Your task to perform on an android device: install app "Truecaller" Image 0: 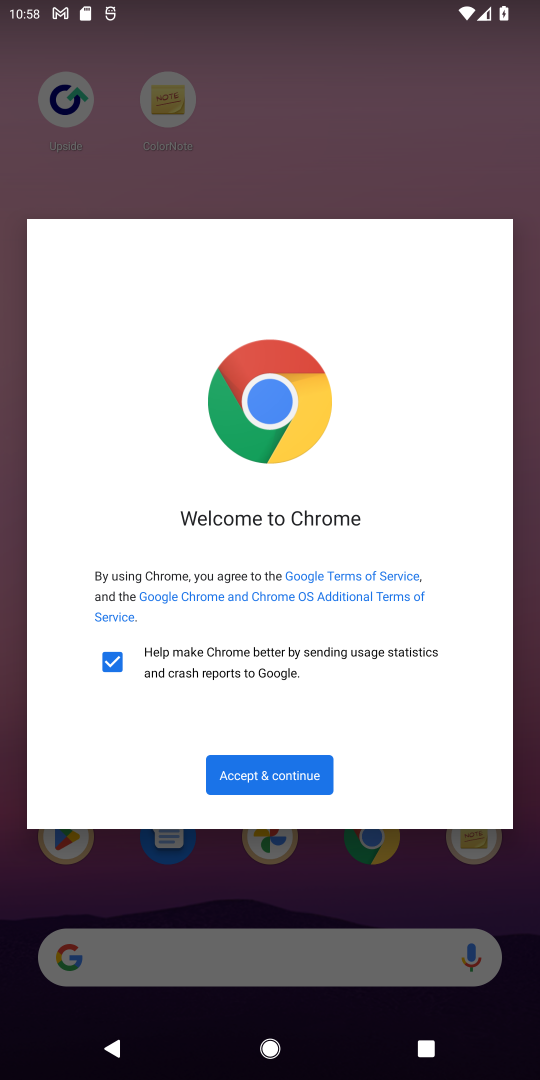
Step 0: press home button
Your task to perform on an android device: install app "Truecaller" Image 1: 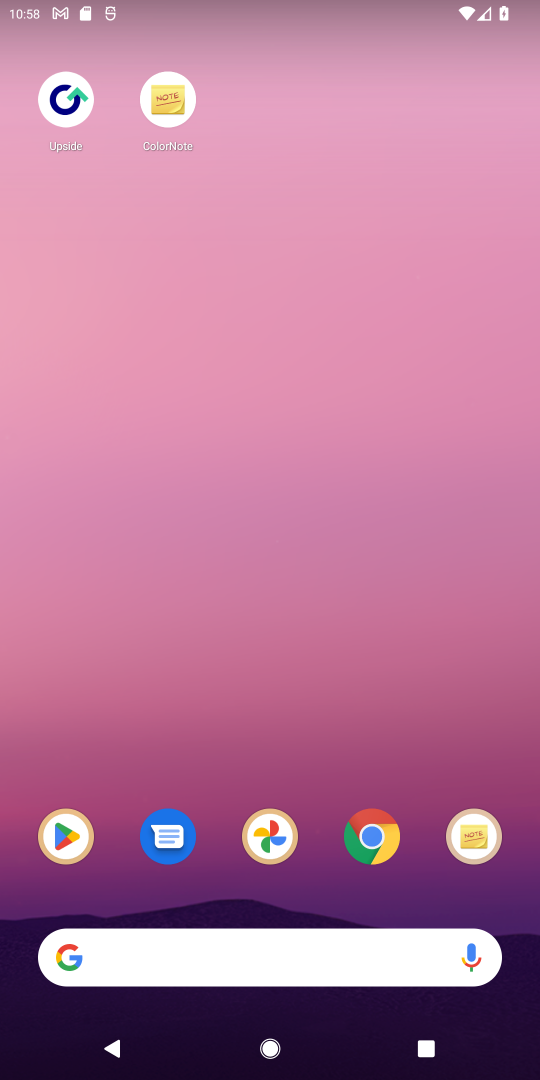
Step 1: drag from (334, 760) to (297, 122)
Your task to perform on an android device: install app "Truecaller" Image 2: 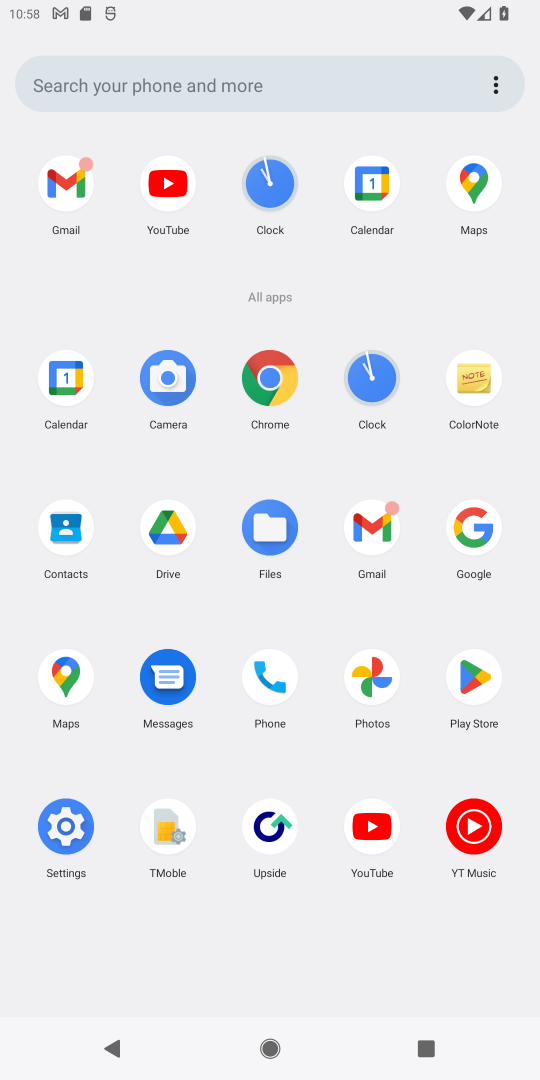
Step 2: click (466, 667)
Your task to perform on an android device: install app "Truecaller" Image 3: 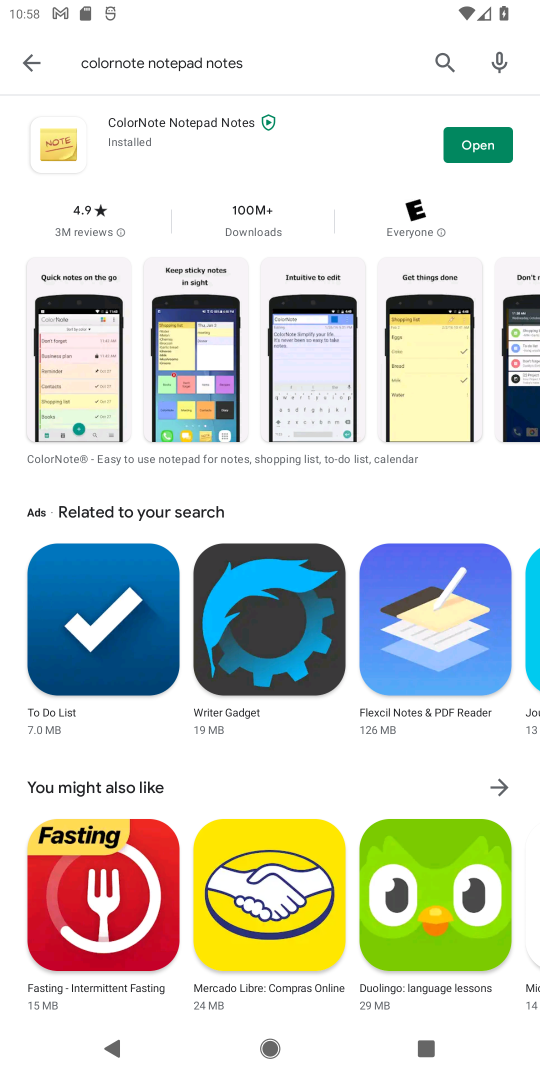
Step 3: click (443, 76)
Your task to perform on an android device: install app "Truecaller" Image 4: 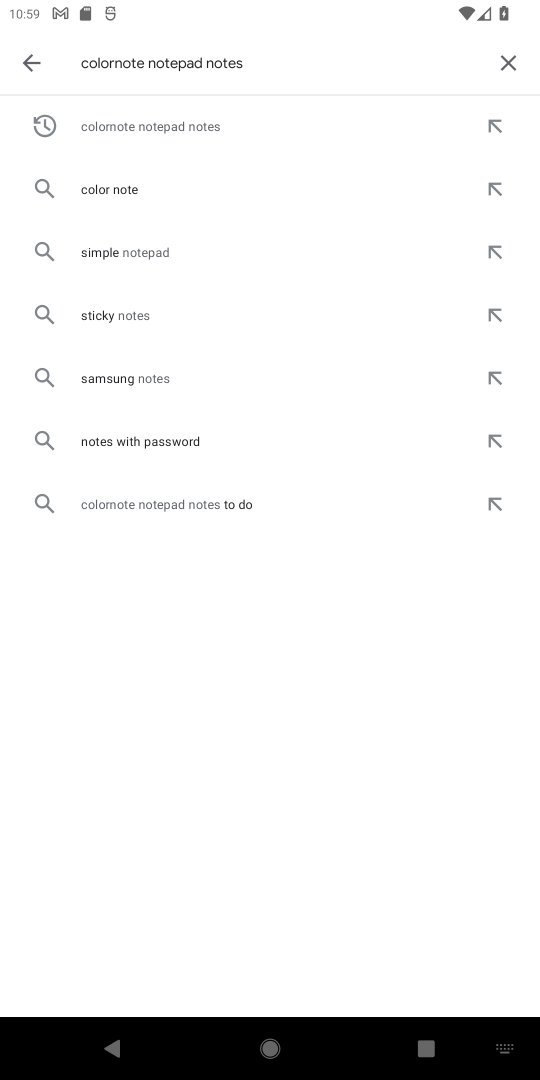
Step 4: click (509, 63)
Your task to perform on an android device: install app "Truecaller" Image 5: 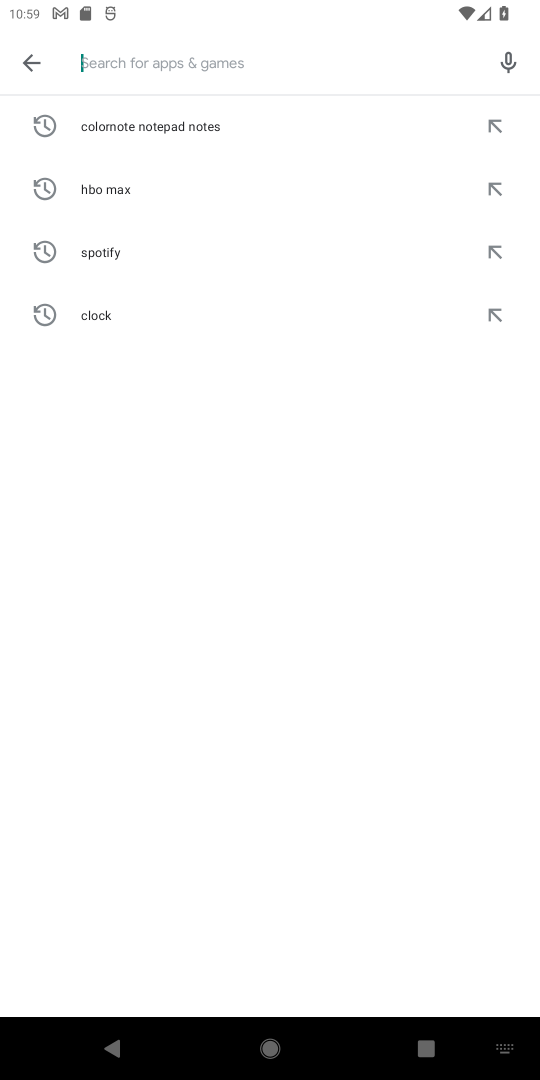
Step 5: type "truecaller"
Your task to perform on an android device: install app "Truecaller" Image 6: 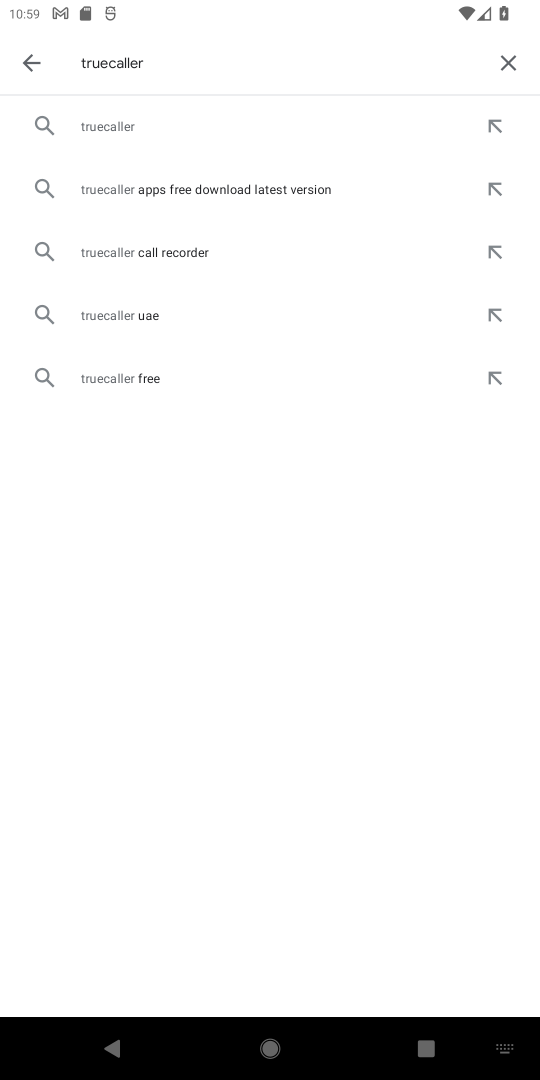
Step 6: click (122, 115)
Your task to perform on an android device: install app "Truecaller" Image 7: 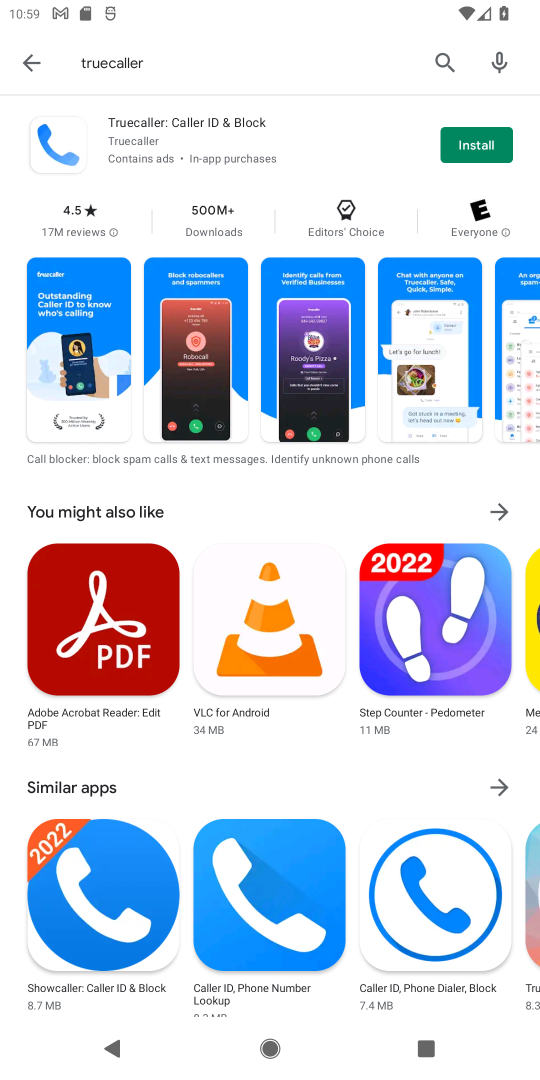
Step 7: click (486, 142)
Your task to perform on an android device: install app "Truecaller" Image 8: 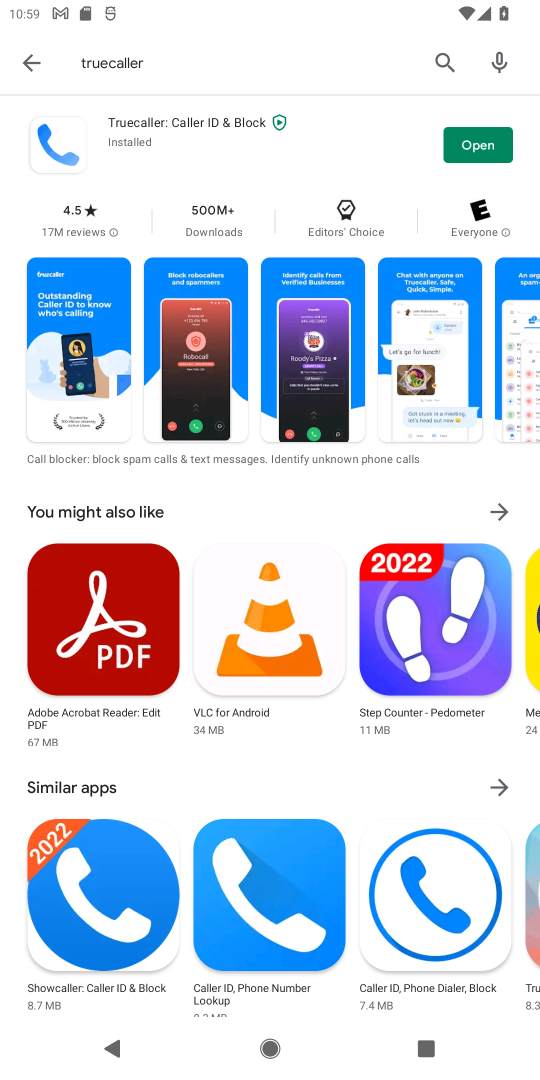
Step 8: task complete